Your task to perform on an android device: install app "Google Find My Device" Image 0: 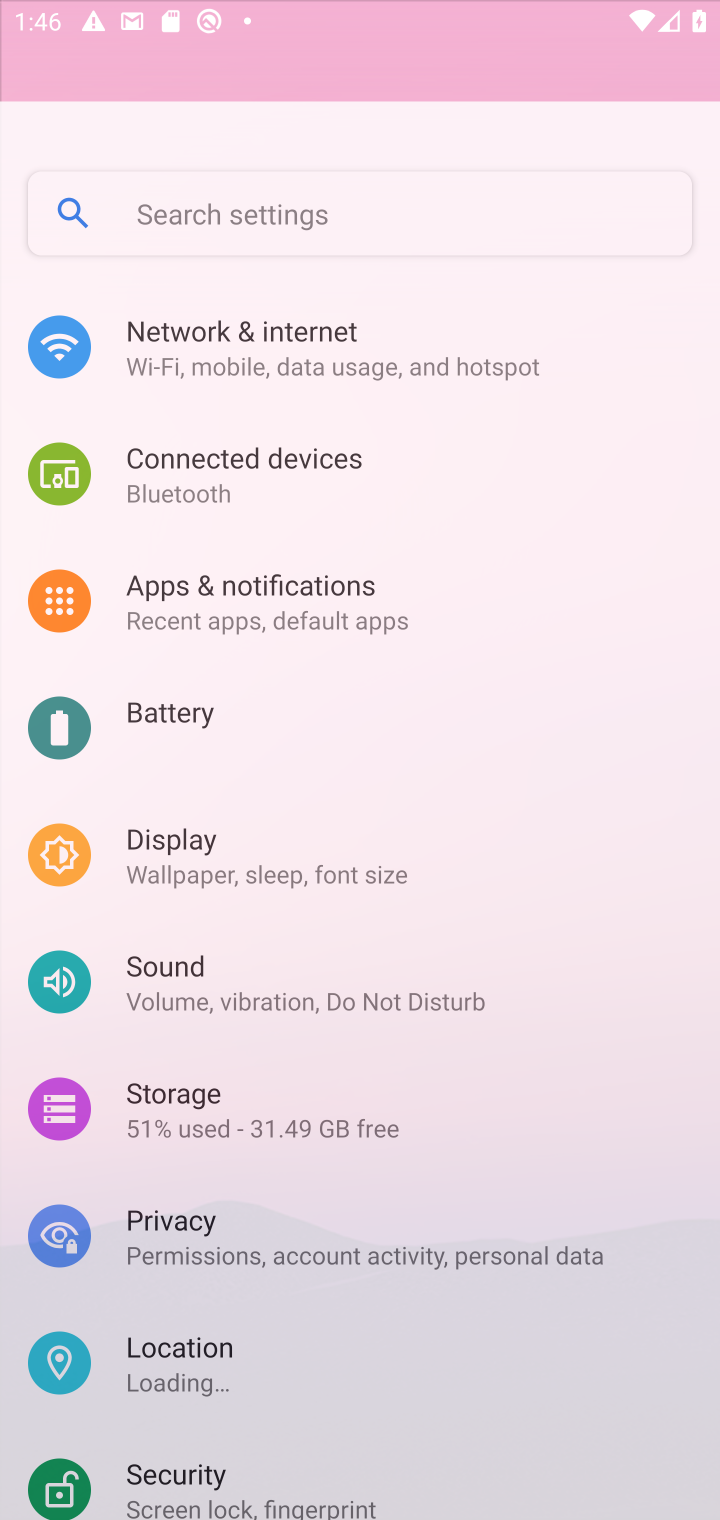
Step 0: press home button
Your task to perform on an android device: install app "Google Find My Device" Image 1: 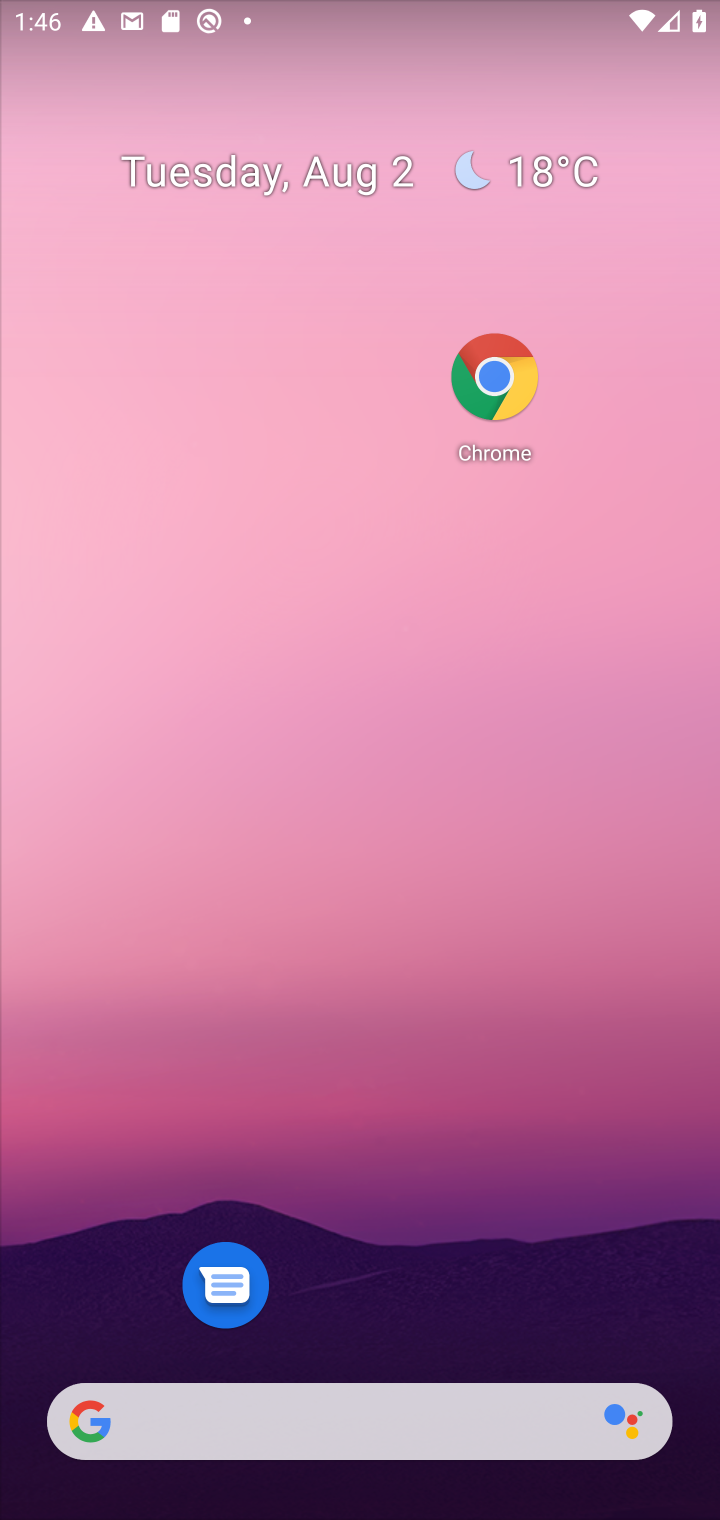
Step 1: press home button
Your task to perform on an android device: install app "Google Find My Device" Image 2: 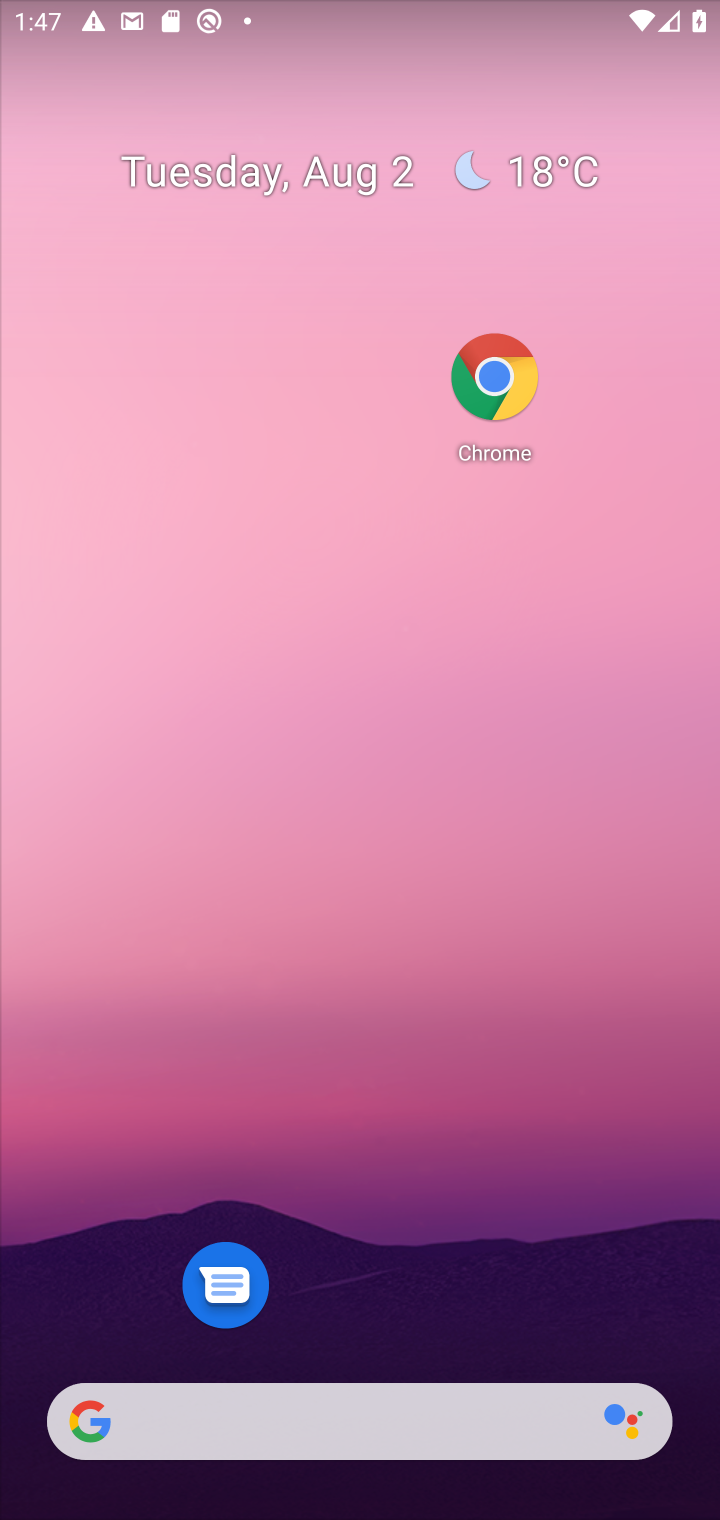
Step 2: drag from (558, 1179) to (560, 132)
Your task to perform on an android device: install app "Google Find My Device" Image 3: 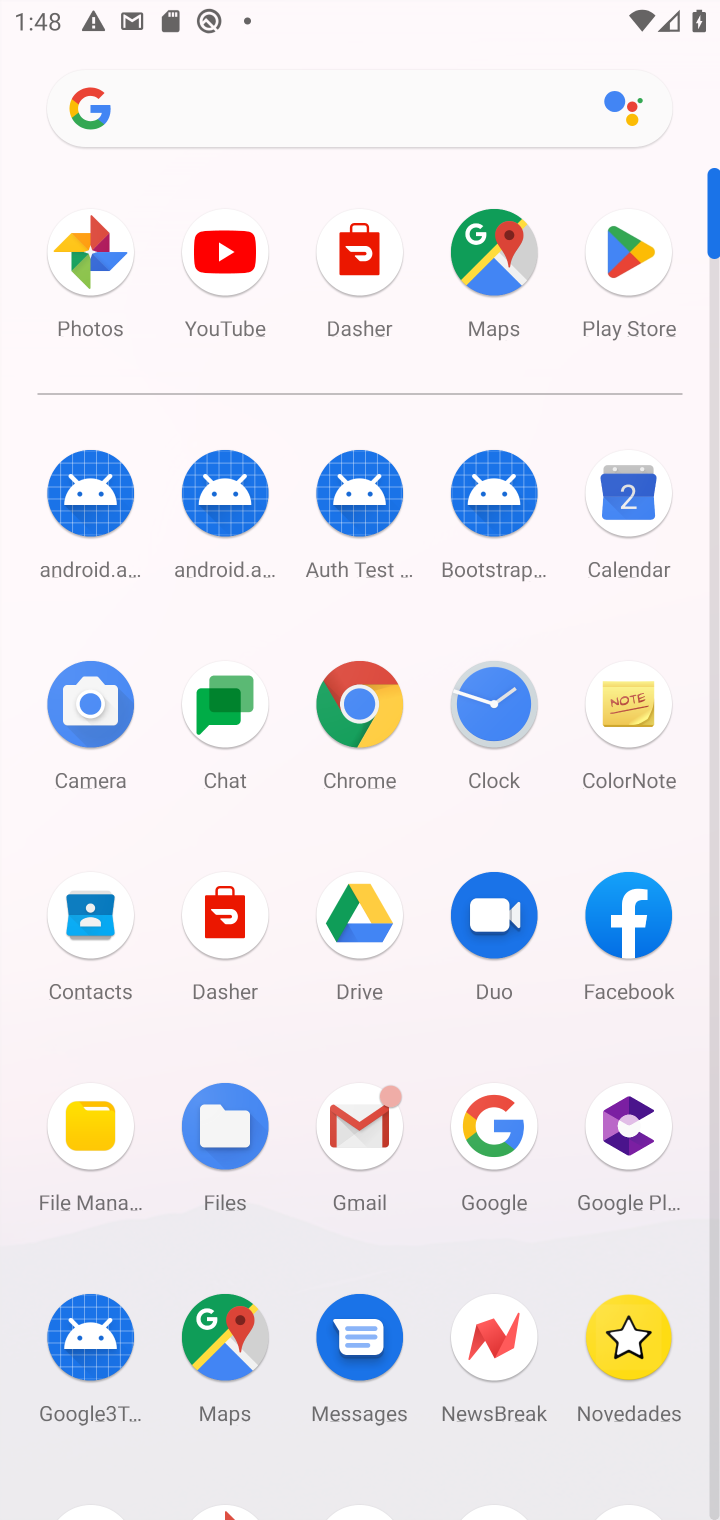
Step 3: click (626, 291)
Your task to perform on an android device: install app "Google Find My Device" Image 4: 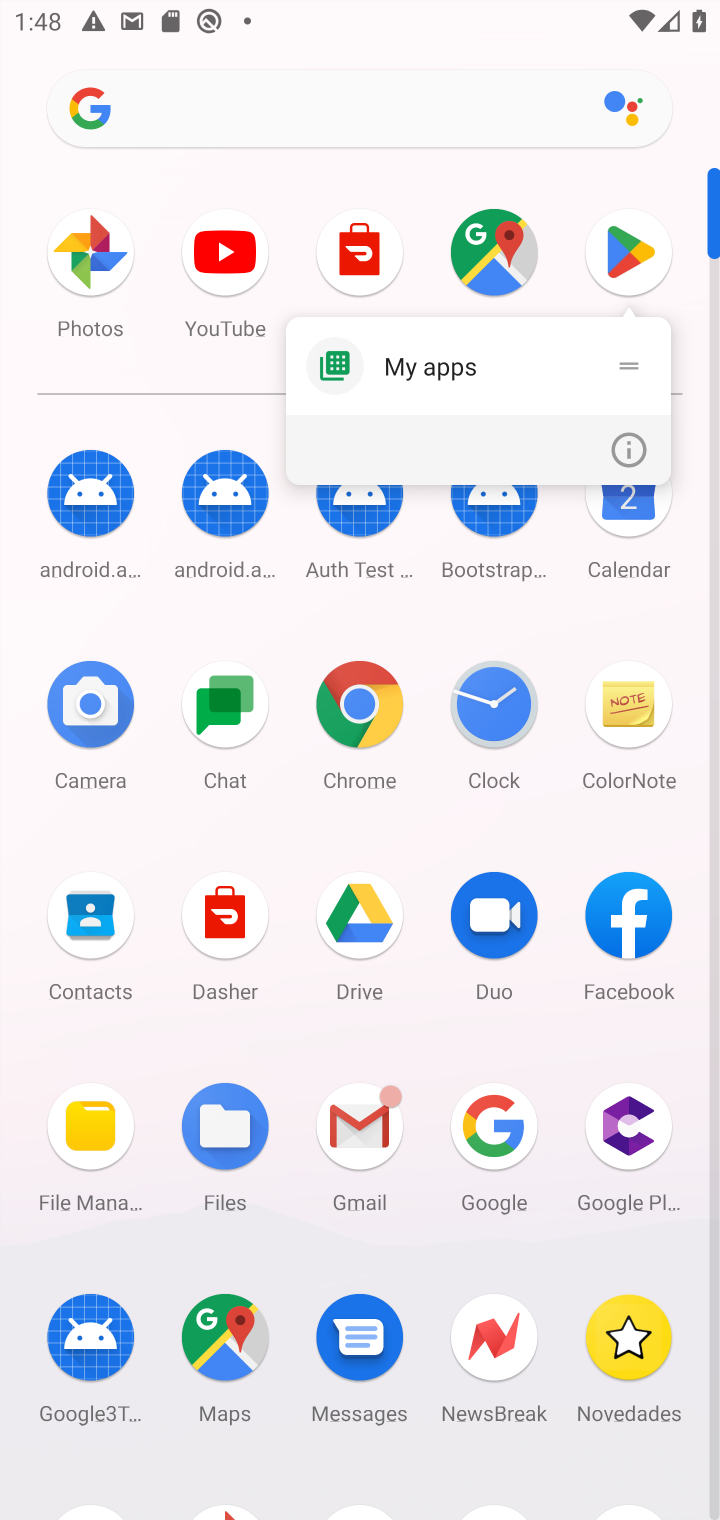
Step 4: click (627, 255)
Your task to perform on an android device: install app "Google Find My Device" Image 5: 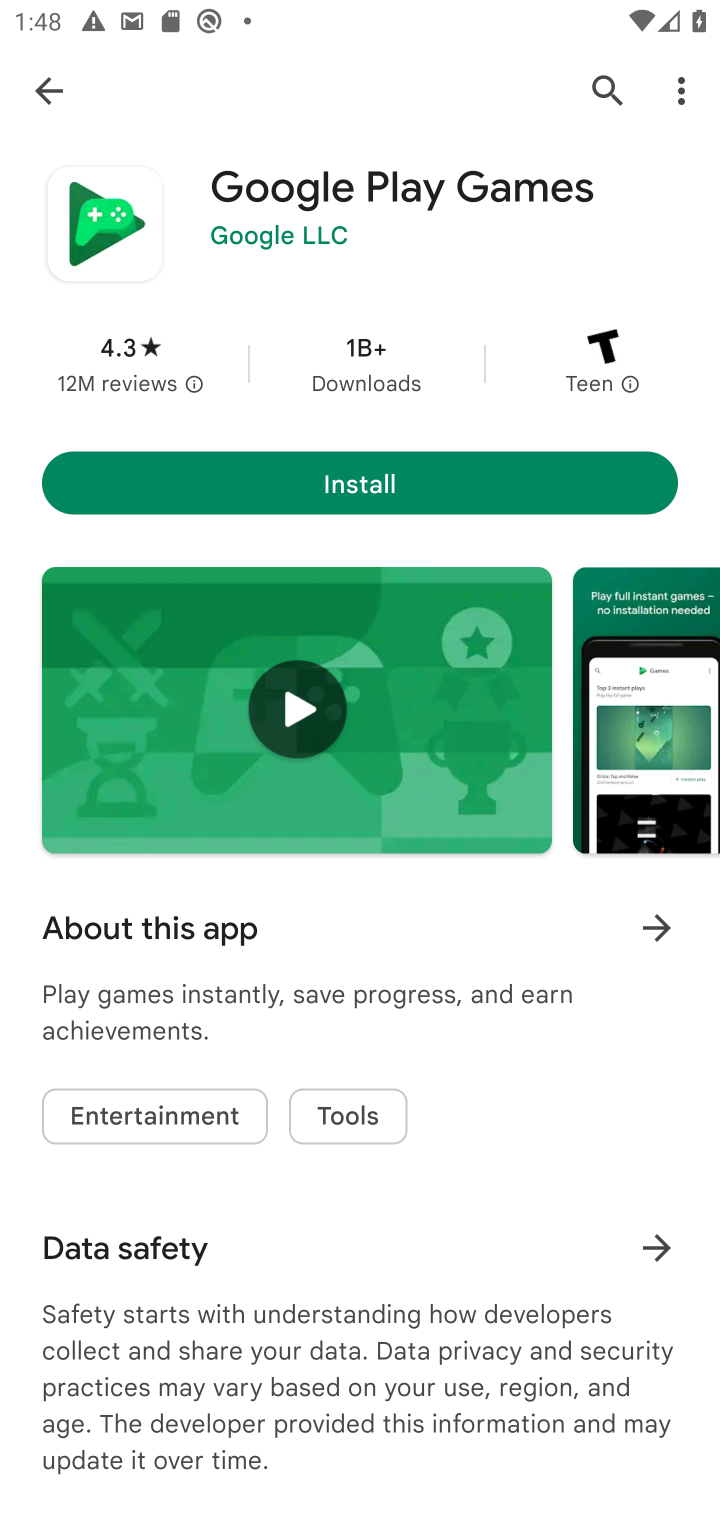
Step 5: click (617, 94)
Your task to perform on an android device: install app "Google Find My Device" Image 6: 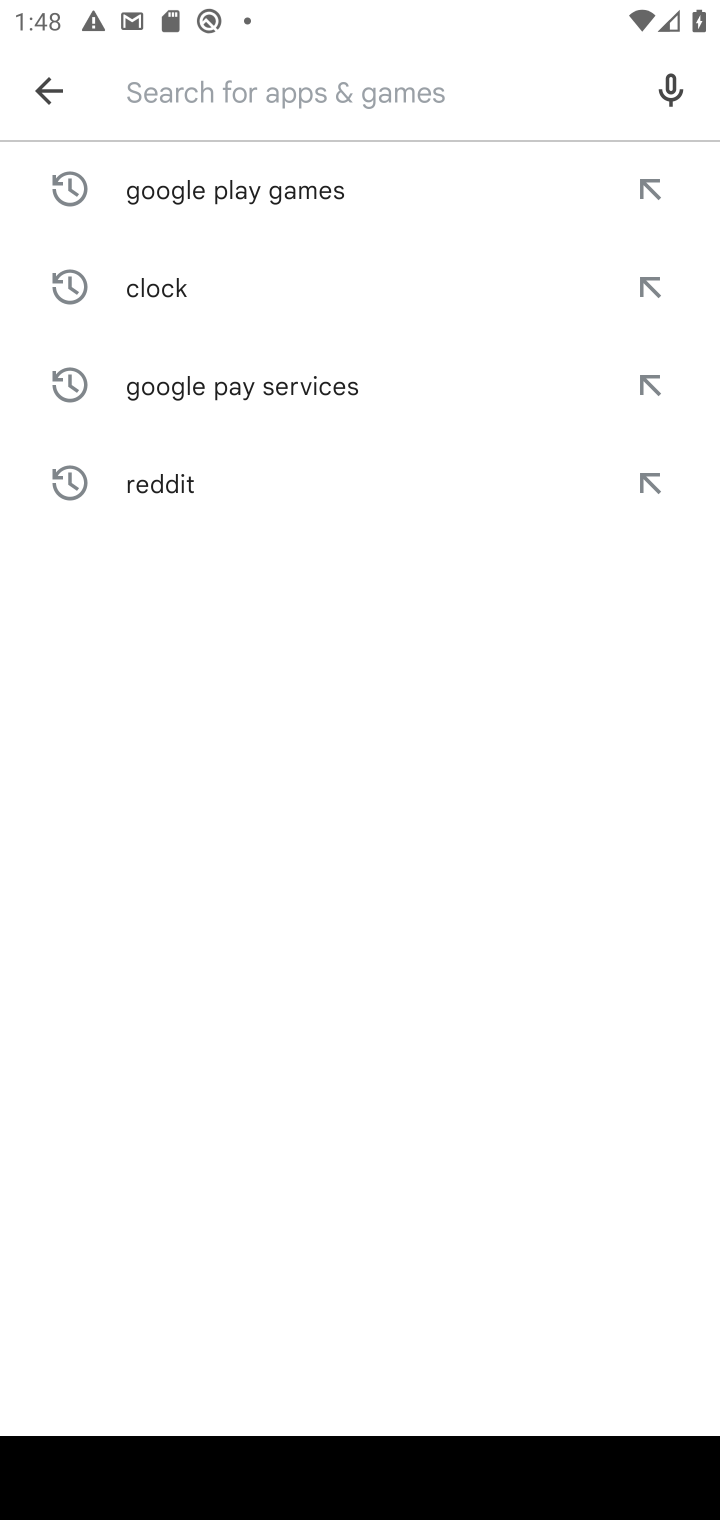
Step 6: type "Google Find My Device "
Your task to perform on an android device: install app "Google Find My Device" Image 7: 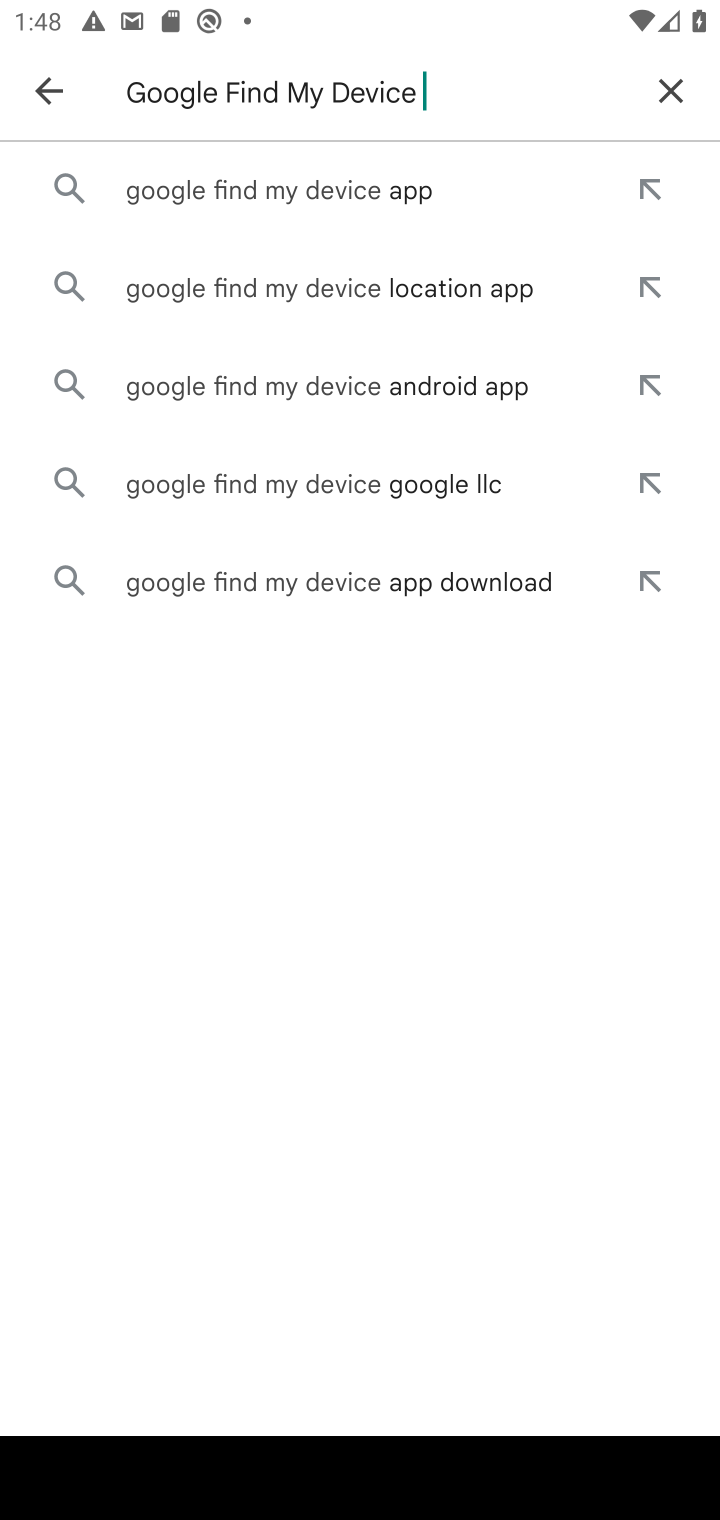
Step 7: click (272, 179)
Your task to perform on an android device: install app "Google Find My Device" Image 8: 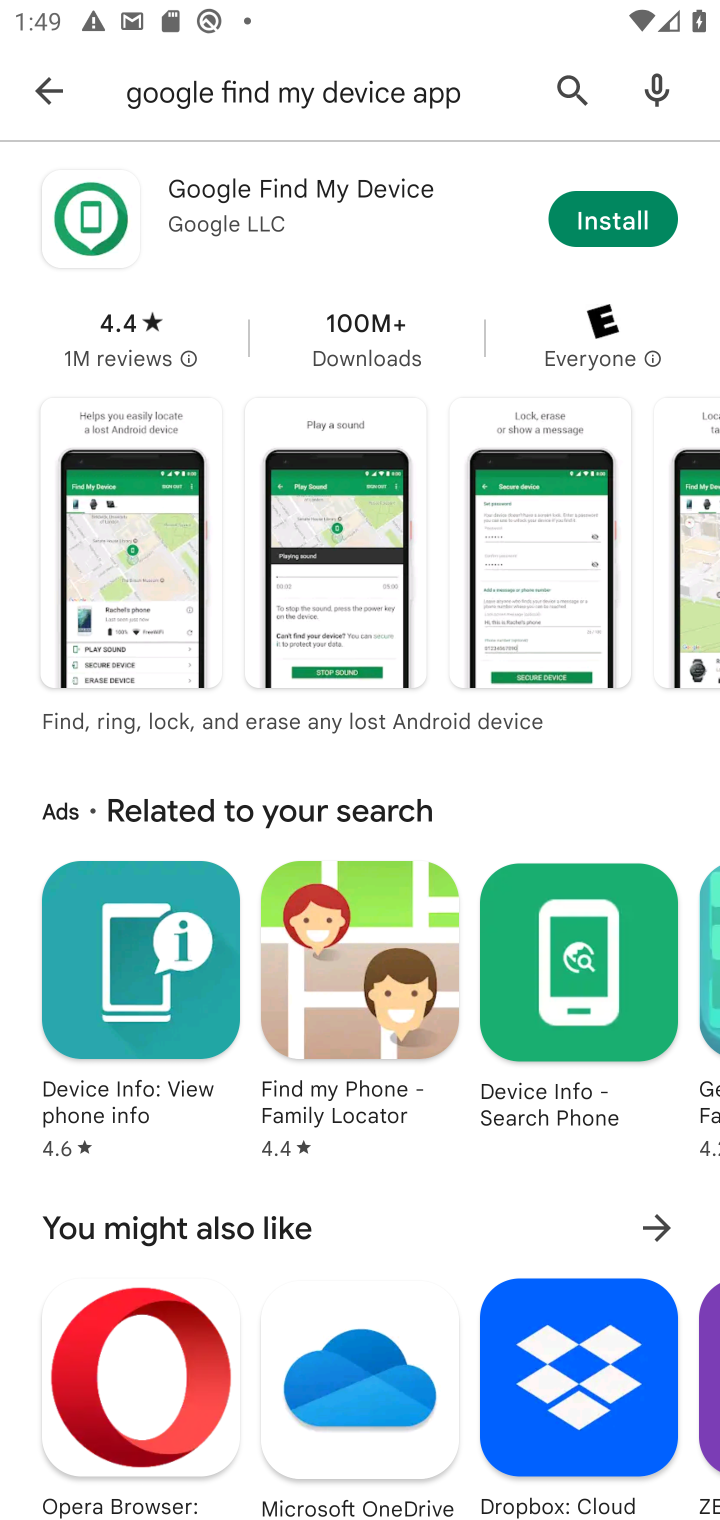
Step 8: click (586, 230)
Your task to perform on an android device: install app "Google Find My Device" Image 9: 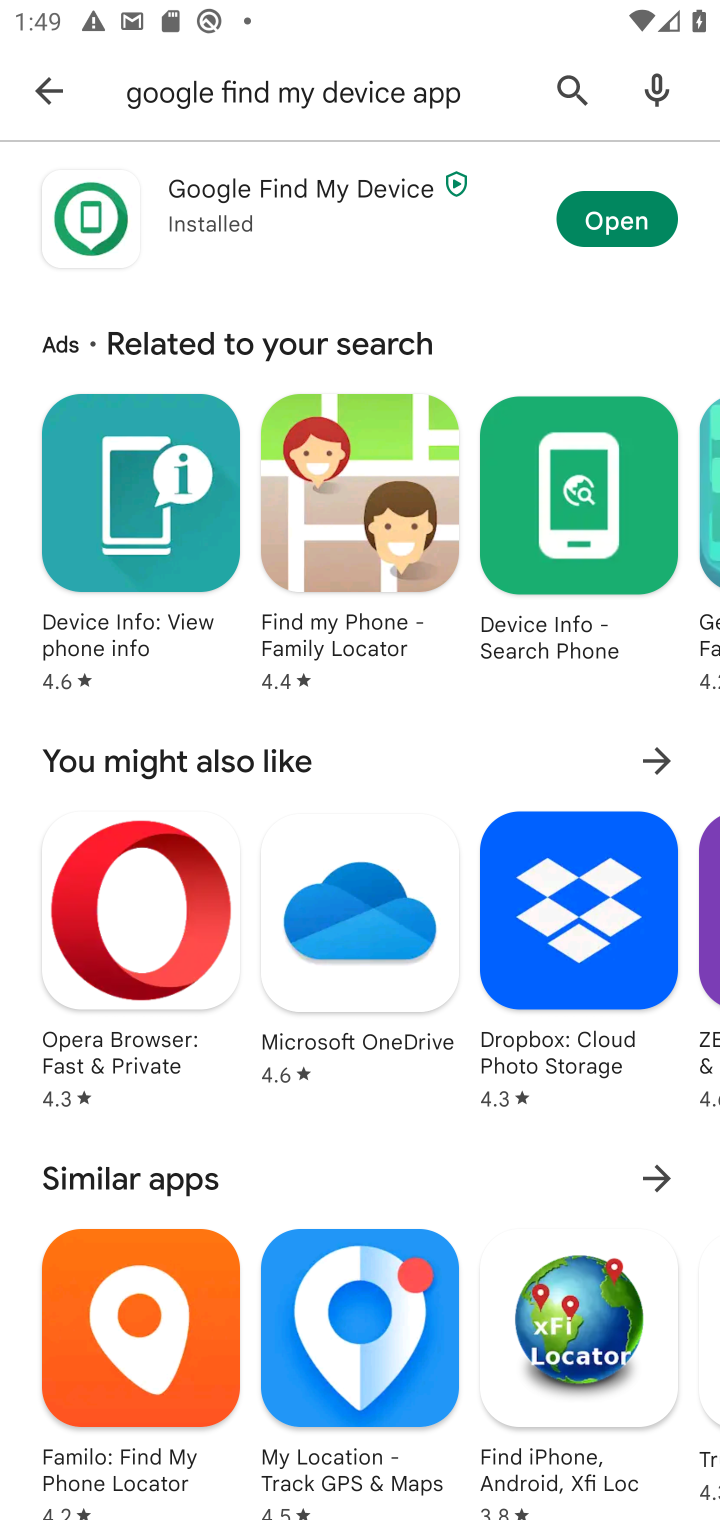
Step 9: task complete